Your task to perform on an android device: turn off data saver in the chrome app Image 0: 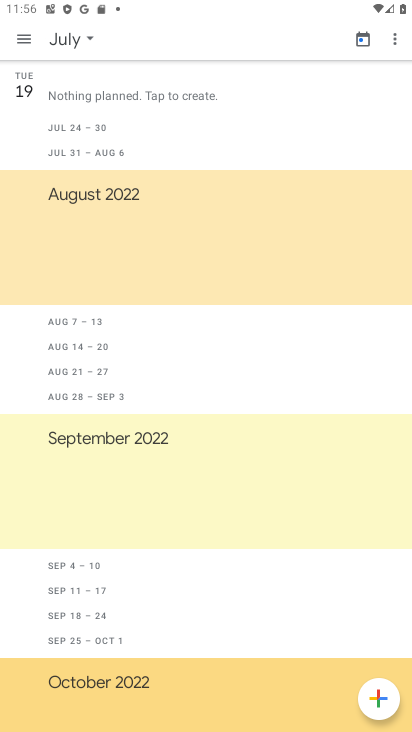
Step 0: click (257, 9)
Your task to perform on an android device: turn off data saver in the chrome app Image 1: 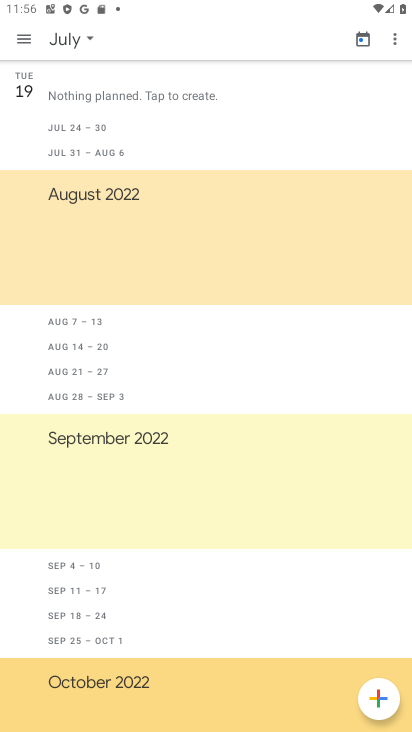
Step 1: press home button
Your task to perform on an android device: turn off data saver in the chrome app Image 2: 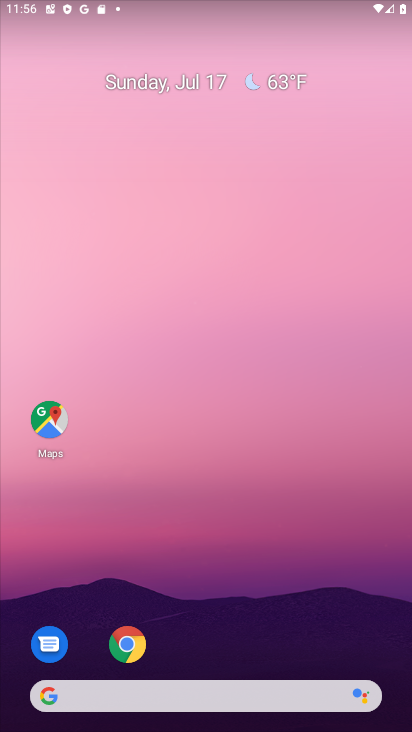
Step 2: click (147, 642)
Your task to perform on an android device: turn off data saver in the chrome app Image 3: 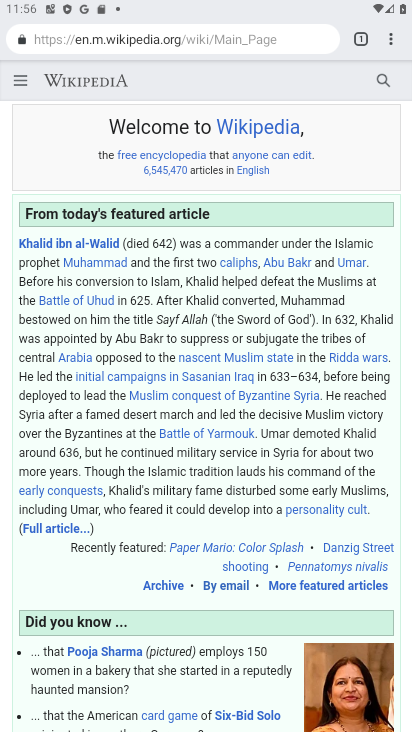
Step 3: click (398, 41)
Your task to perform on an android device: turn off data saver in the chrome app Image 4: 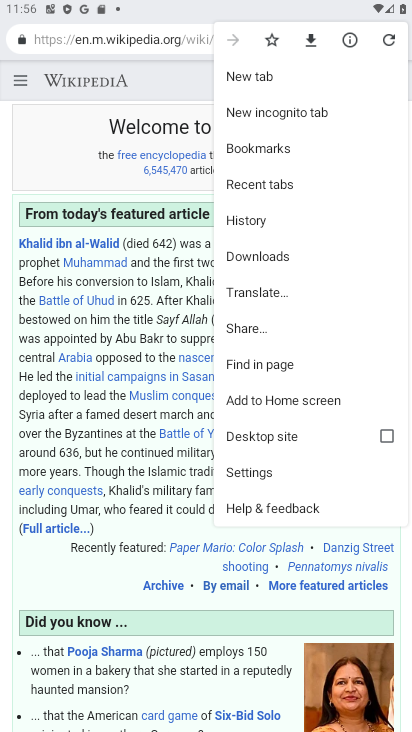
Step 4: click (300, 471)
Your task to perform on an android device: turn off data saver in the chrome app Image 5: 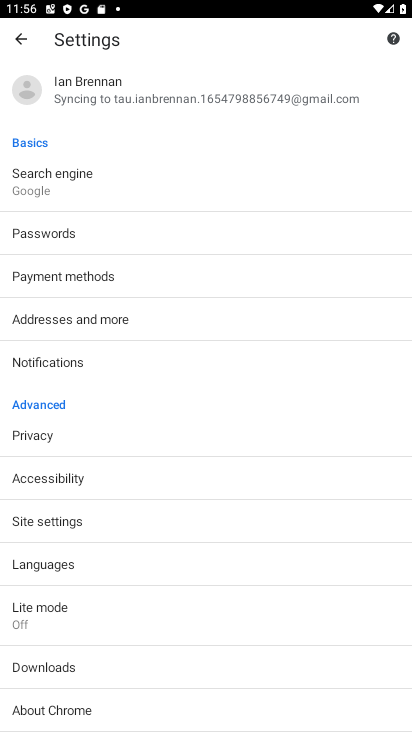
Step 5: click (167, 611)
Your task to perform on an android device: turn off data saver in the chrome app Image 6: 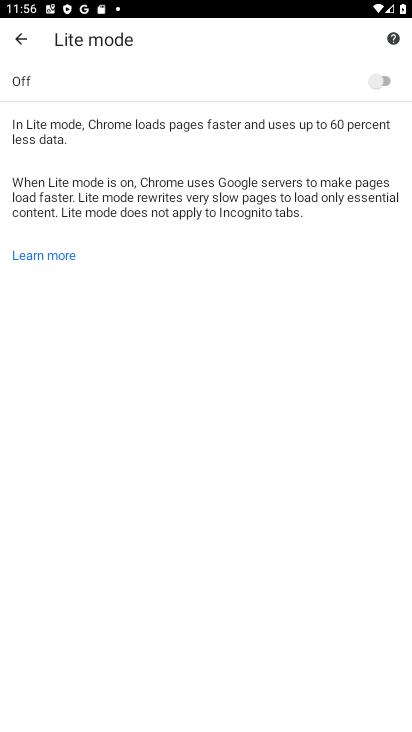
Step 6: task complete